Your task to perform on an android device: Open ESPN.com Image 0: 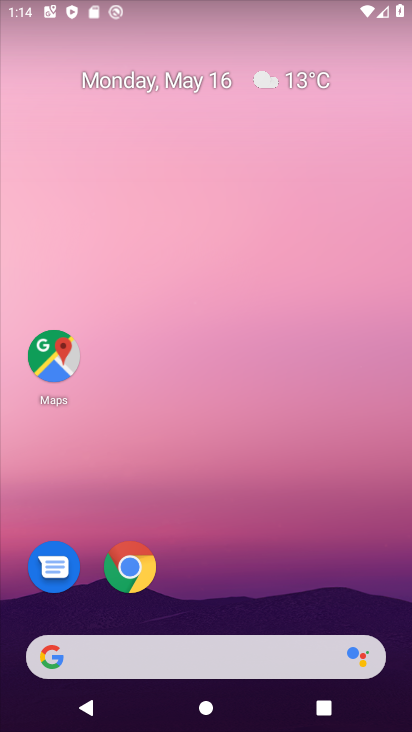
Step 0: click (127, 568)
Your task to perform on an android device: Open ESPN.com Image 1: 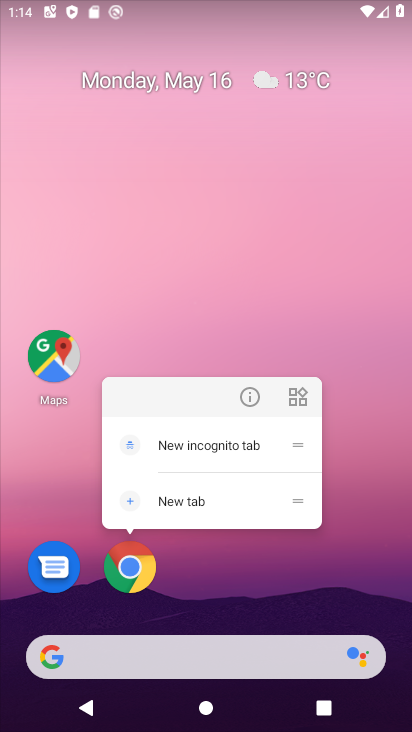
Step 1: click (129, 590)
Your task to perform on an android device: Open ESPN.com Image 2: 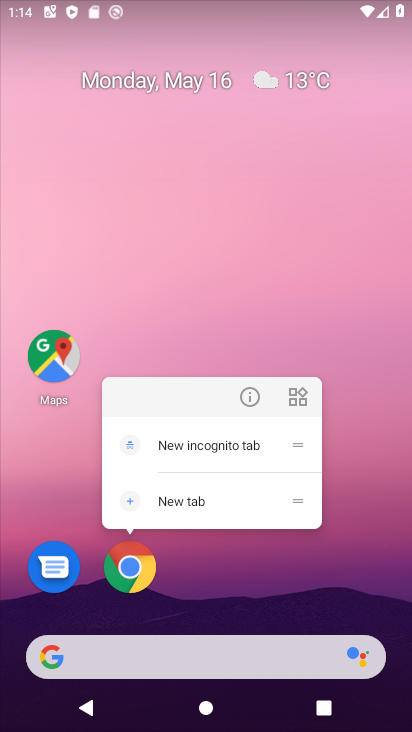
Step 2: click (128, 578)
Your task to perform on an android device: Open ESPN.com Image 3: 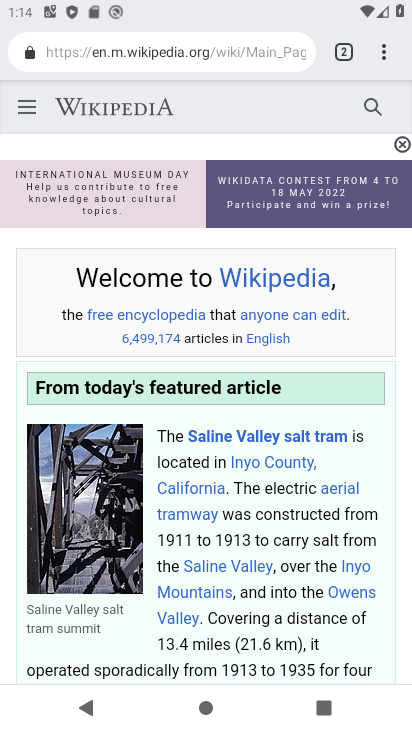
Step 3: drag from (390, 57) to (370, 117)
Your task to perform on an android device: Open ESPN.com Image 4: 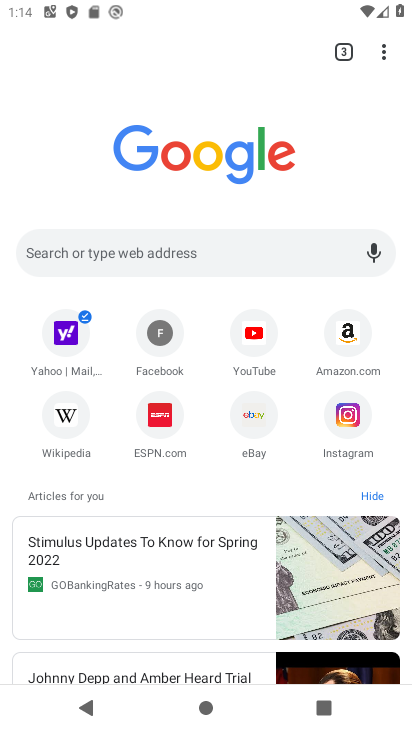
Step 4: click (145, 431)
Your task to perform on an android device: Open ESPN.com Image 5: 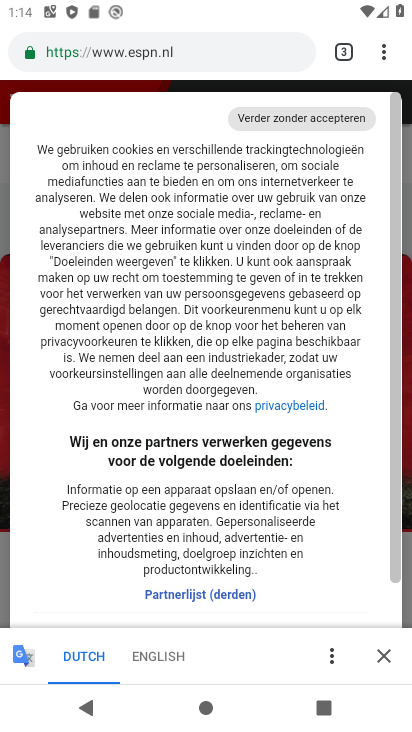
Step 5: task complete